Your task to perform on an android device: make emails show in primary in the gmail app Image 0: 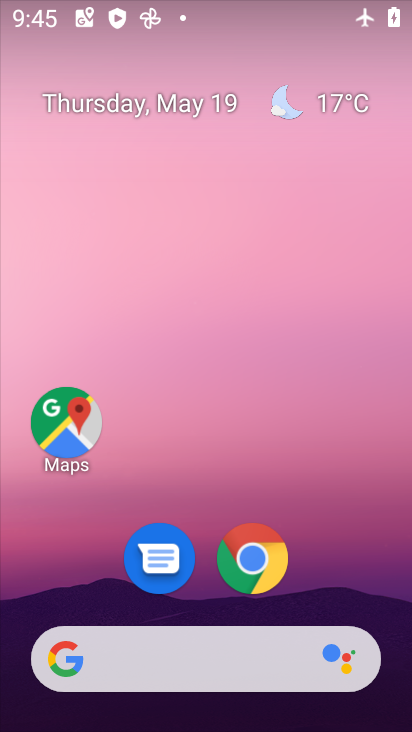
Step 0: drag from (223, 714) to (225, 99)
Your task to perform on an android device: make emails show in primary in the gmail app Image 1: 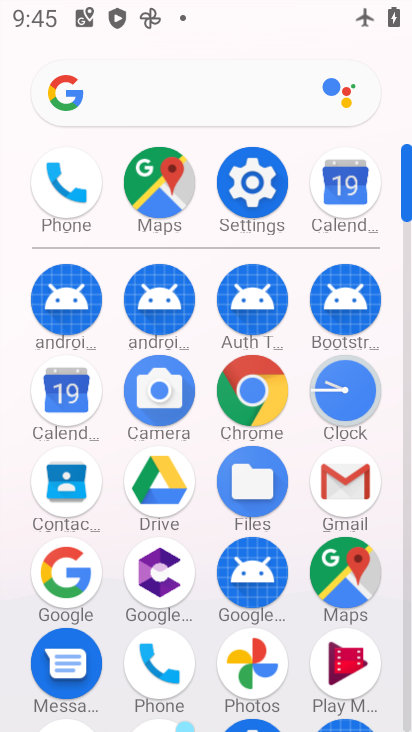
Step 1: click (346, 471)
Your task to perform on an android device: make emails show in primary in the gmail app Image 2: 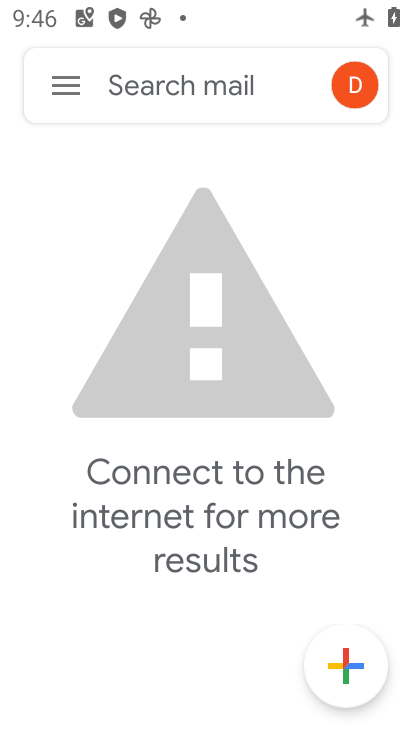
Step 2: click (64, 84)
Your task to perform on an android device: make emails show in primary in the gmail app Image 3: 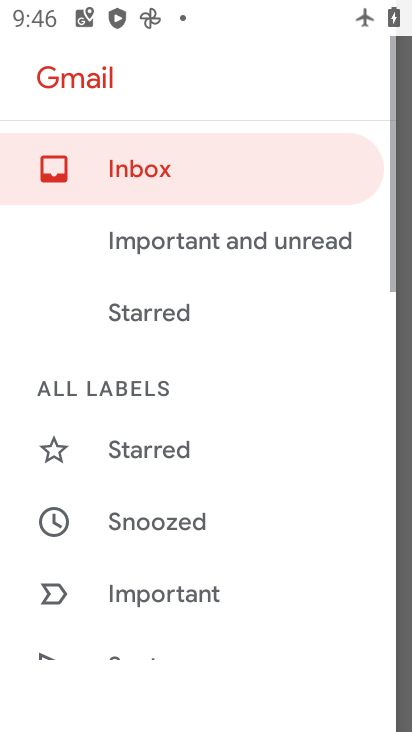
Step 3: drag from (152, 644) to (154, 178)
Your task to perform on an android device: make emails show in primary in the gmail app Image 4: 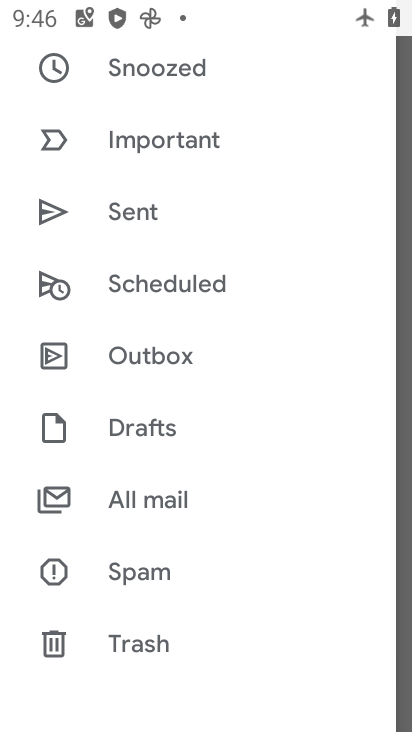
Step 4: drag from (185, 599) to (162, 144)
Your task to perform on an android device: make emails show in primary in the gmail app Image 5: 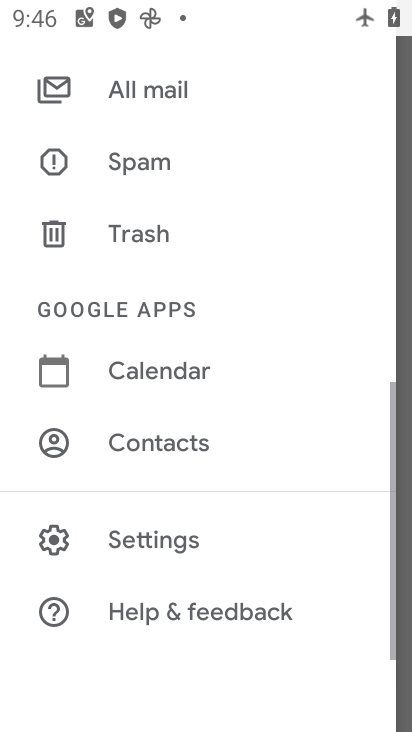
Step 5: click (160, 539)
Your task to perform on an android device: make emails show in primary in the gmail app Image 6: 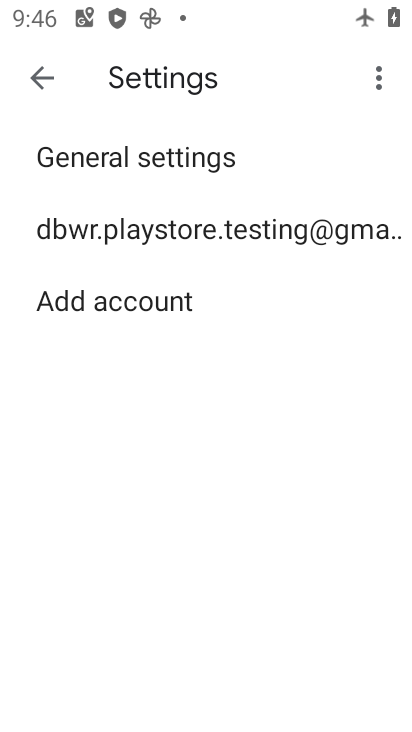
Step 6: click (155, 232)
Your task to perform on an android device: make emails show in primary in the gmail app Image 7: 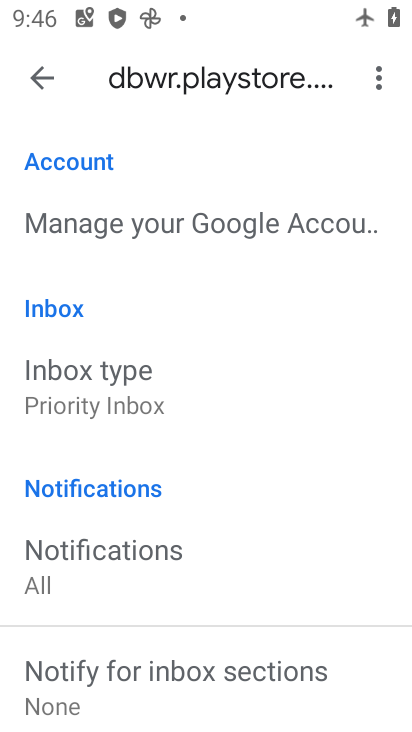
Step 7: drag from (164, 617) to (163, 458)
Your task to perform on an android device: make emails show in primary in the gmail app Image 8: 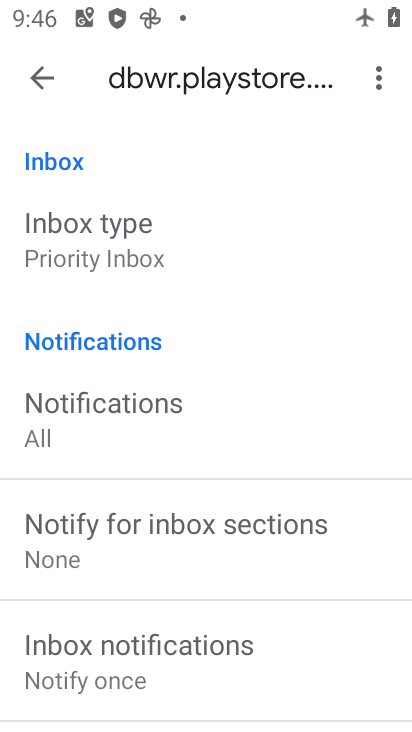
Step 8: click (122, 235)
Your task to perform on an android device: make emails show in primary in the gmail app Image 9: 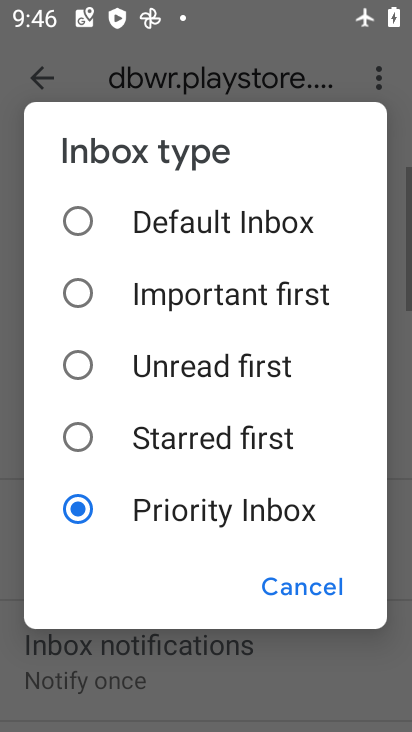
Step 9: click (75, 225)
Your task to perform on an android device: make emails show in primary in the gmail app Image 10: 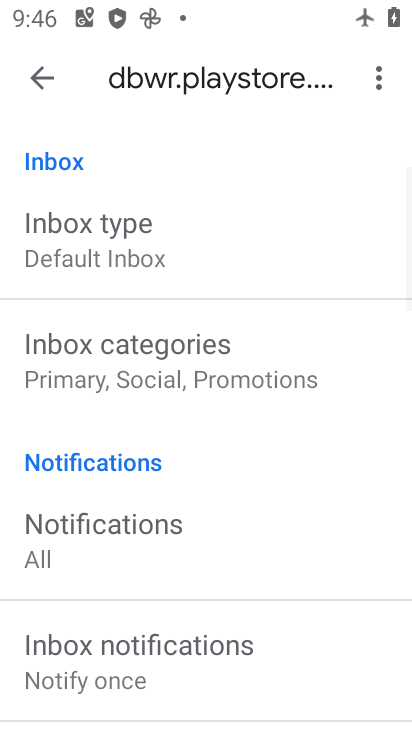
Step 10: click (121, 376)
Your task to perform on an android device: make emails show in primary in the gmail app Image 11: 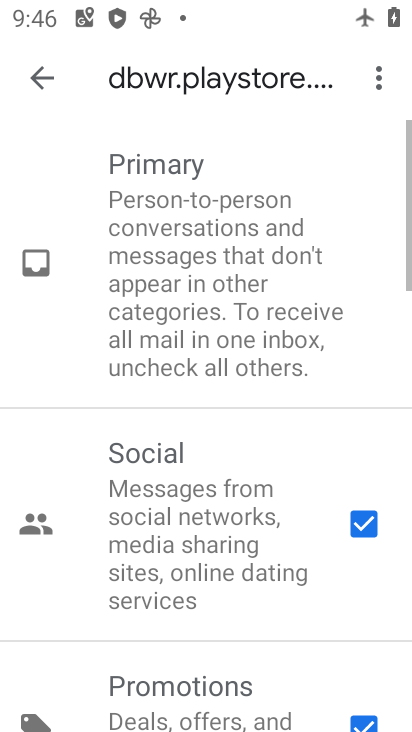
Step 11: drag from (203, 600) to (183, 249)
Your task to perform on an android device: make emails show in primary in the gmail app Image 12: 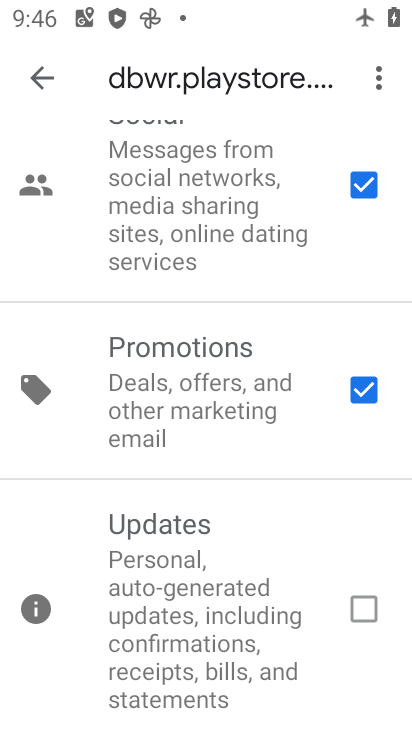
Step 12: click (358, 382)
Your task to perform on an android device: make emails show in primary in the gmail app Image 13: 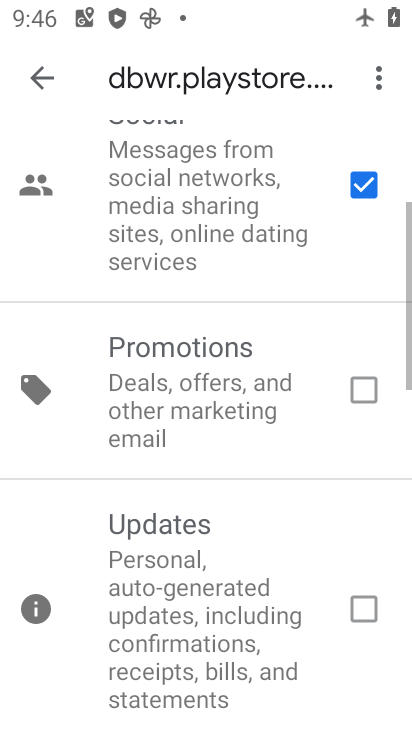
Step 13: click (357, 178)
Your task to perform on an android device: make emails show in primary in the gmail app Image 14: 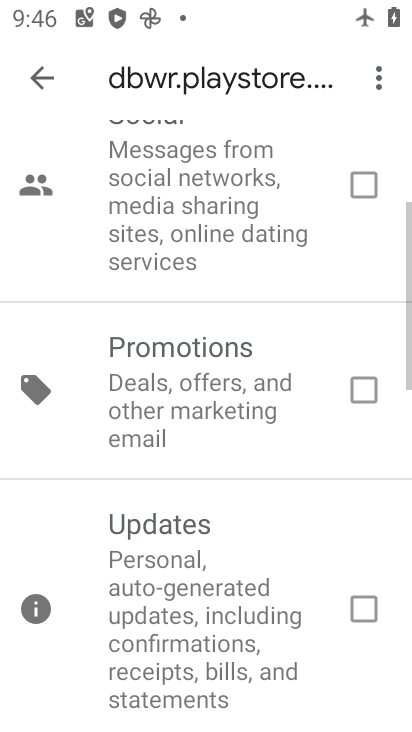
Step 14: click (46, 74)
Your task to perform on an android device: make emails show in primary in the gmail app Image 15: 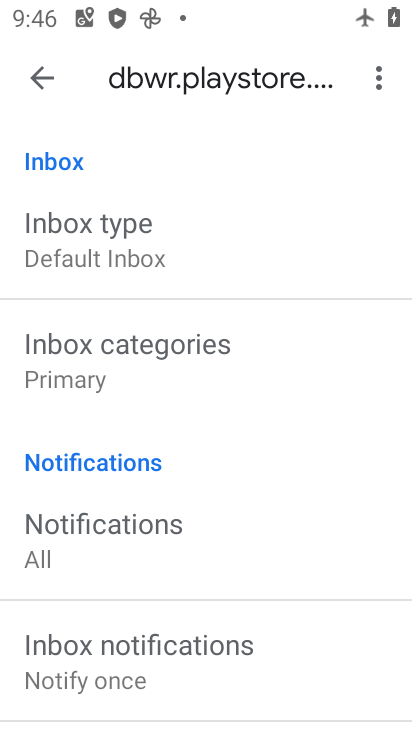
Step 15: task complete